Your task to perform on an android device: open wifi settings Image 0: 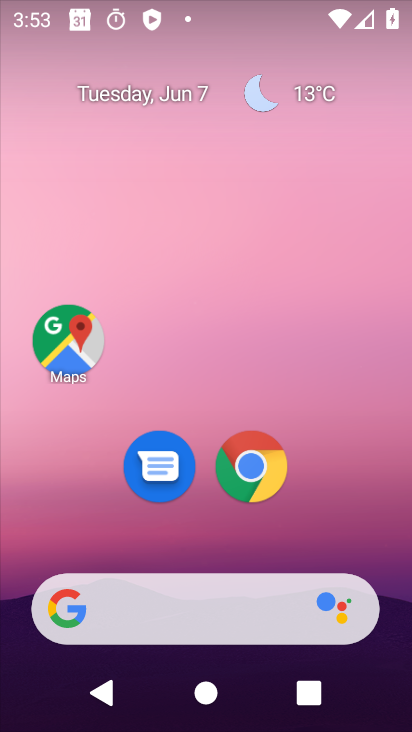
Step 0: drag from (401, 565) to (346, 295)
Your task to perform on an android device: open wifi settings Image 1: 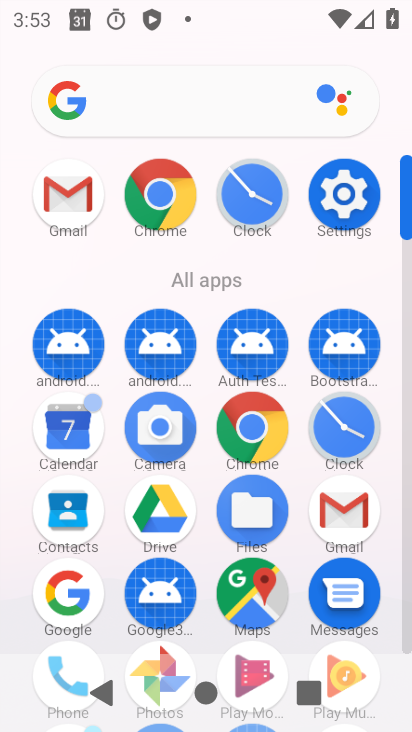
Step 1: click (350, 214)
Your task to perform on an android device: open wifi settings Image 2: 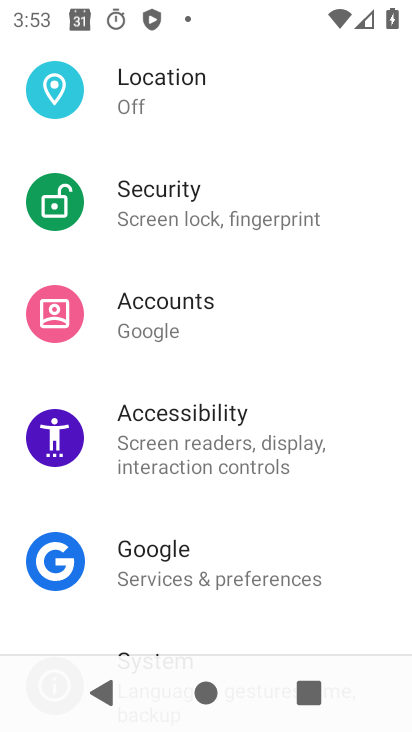
Step 2: drag from (269, 301) to (270, 542)
Your task to perform on an android device: open wifi settings Image 3: 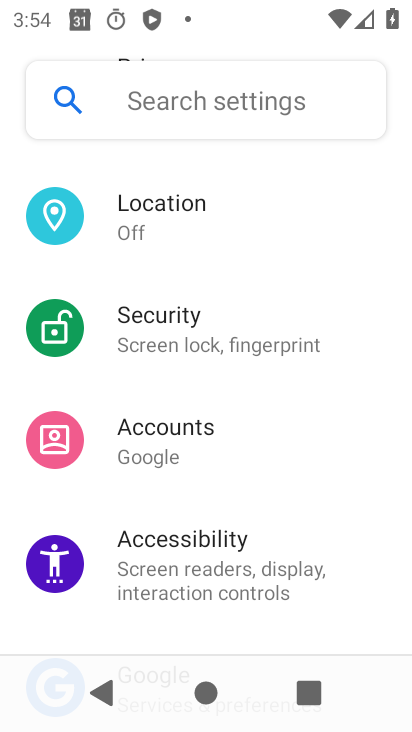
Step 3: drag from (199, 243) to (379, 365)
Your task to perform on an android device: open wifi settings Image 4: 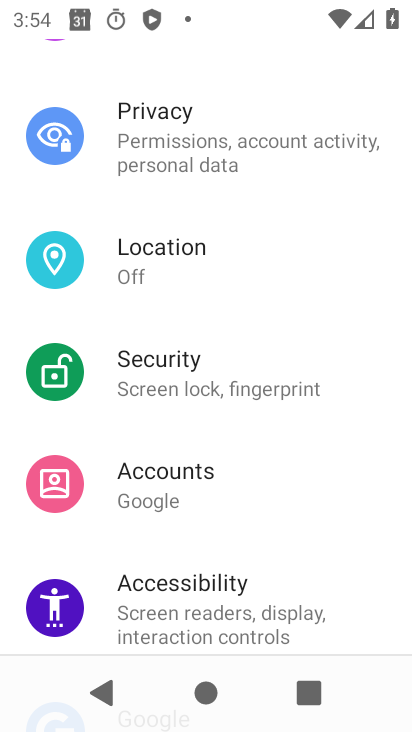
Step 4: drag from (254, 157) to (371, 715)
Your task to perform on an android device: open wifi settings Image 5: 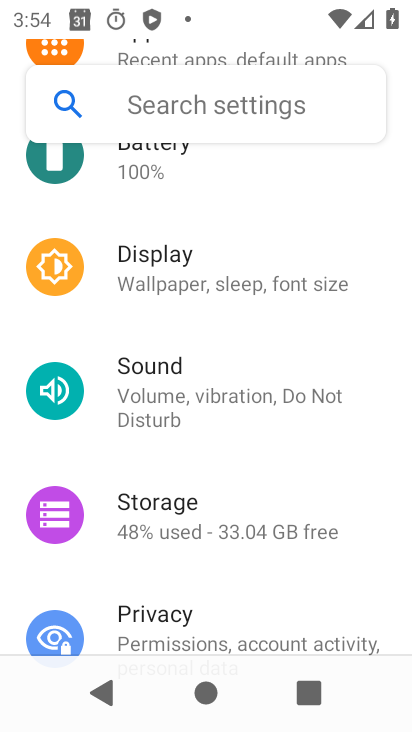
Step 5: drag from (320, 190) to (408, 399)
Your task to perform on an android device: open wifi settings Image 6: 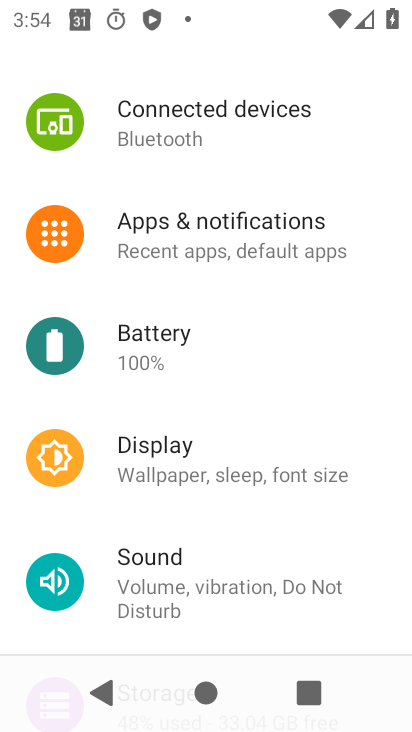
Step 6: drag from (357, 129) to (406, 539)
Your task to perform on an android device: open wifi settings Image 7: 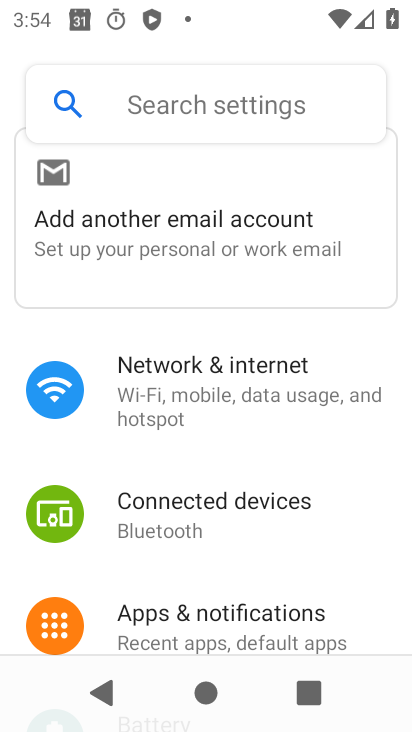
Step 7: click (300, 398)
Your task to perform on an android device: open wifi settings Image 8: 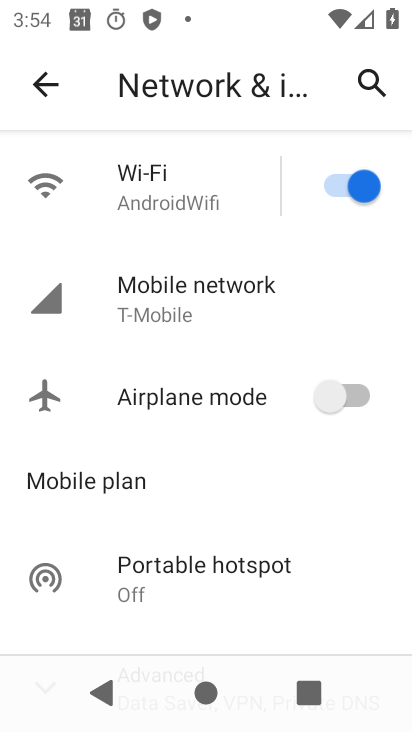
Step 8: click (148, 185)
Your task to perform on an android device: open wifi settings Image 9: 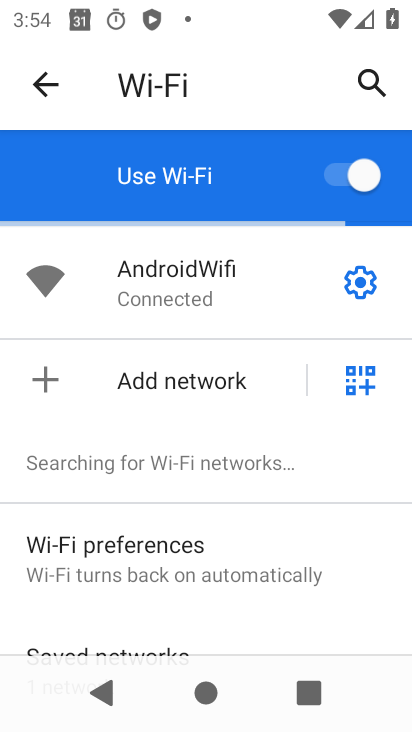
Step 9: task complete